Your task to perform on an android device: find photos in the google photos app Image 0: 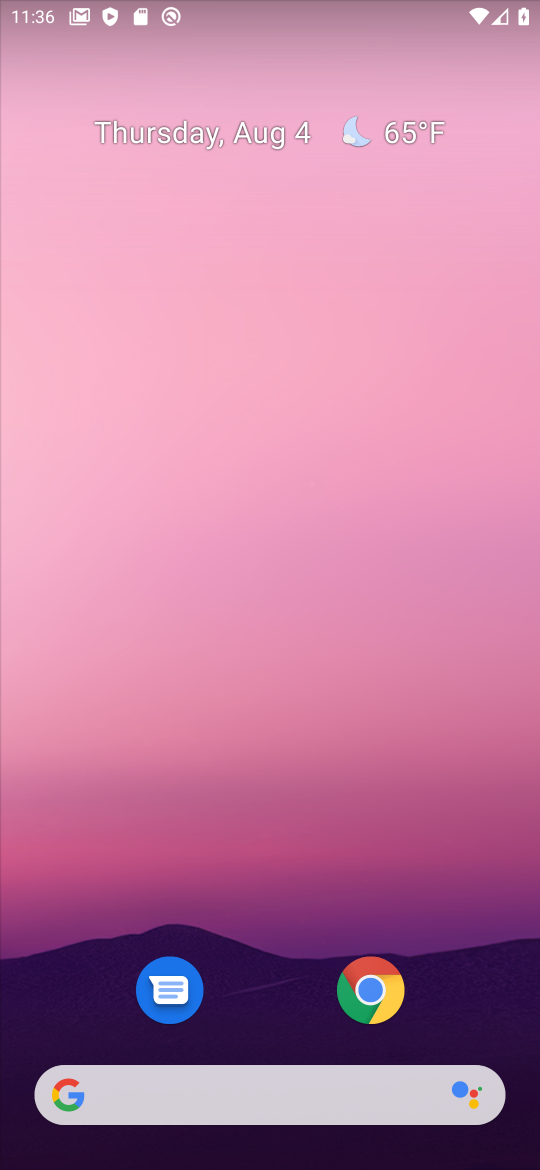
Step 0: drag from (490, 991) to (400, 233)
Your task to perform on an android device: find photos in the google photos app Image 1: 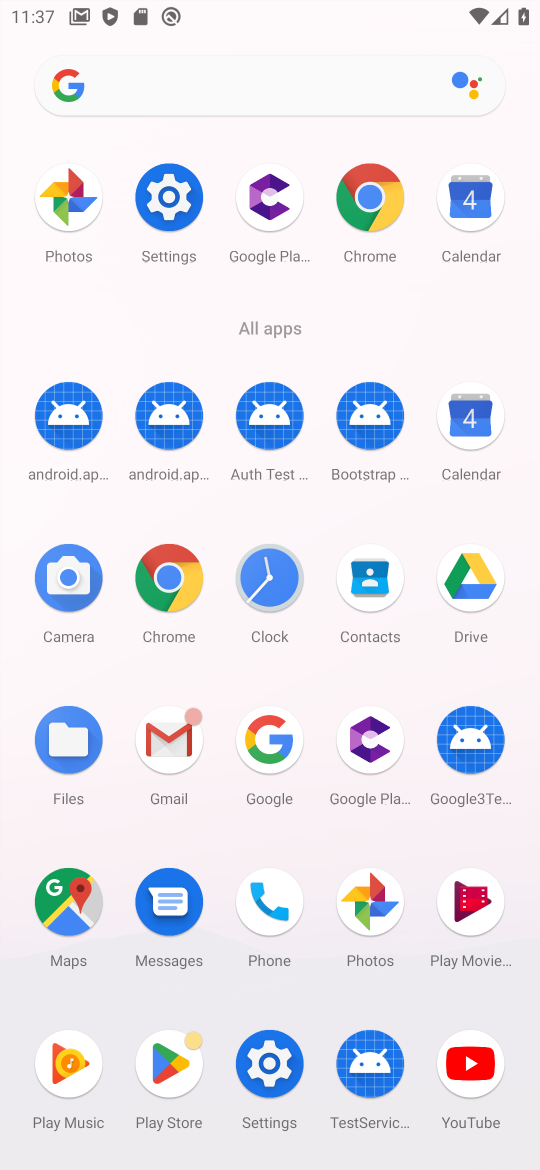
Step 1: click (66, 187)
Your task to perform on an android device: find photos in the google photos app Image 2: 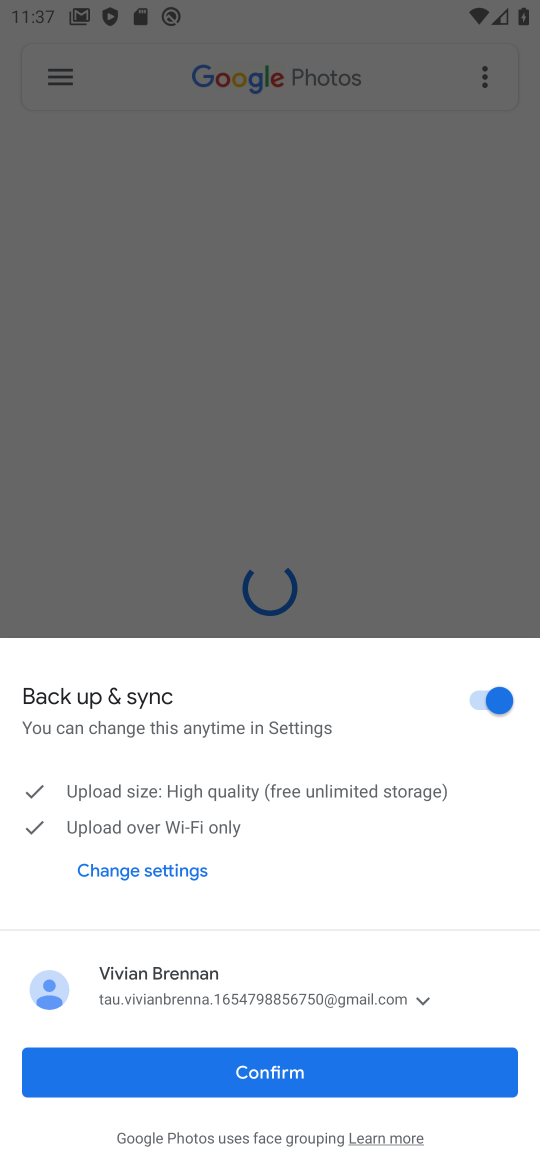
Step 2: click (331, 1076)
Your task to perform on an android device: find photos in the google photos app Image 3: 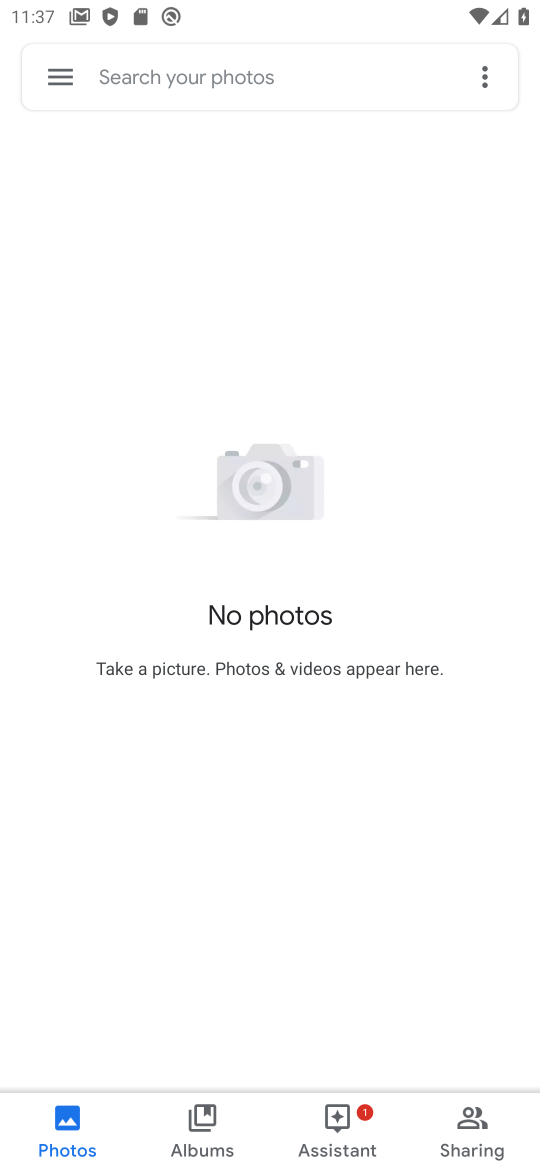
Step 3: task complete